Your task to perform on an android device: Open Google Chrome and click the shortcut for Amazon.com Image 0: 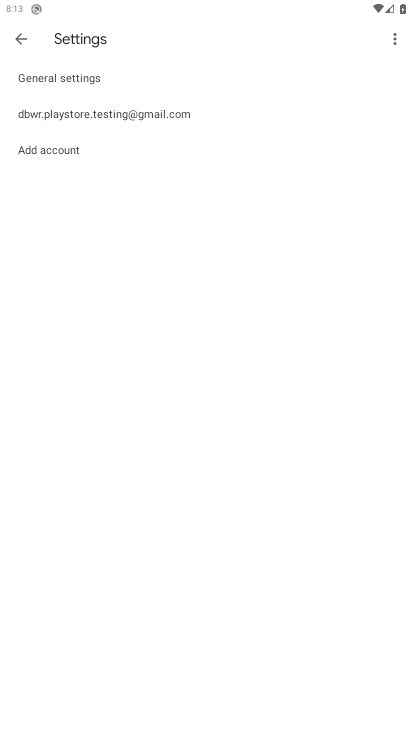
Step 0: press home button
Your task to perform on an android device: Open Google Chrome and click the shortcut for Amazon.com Image 1: 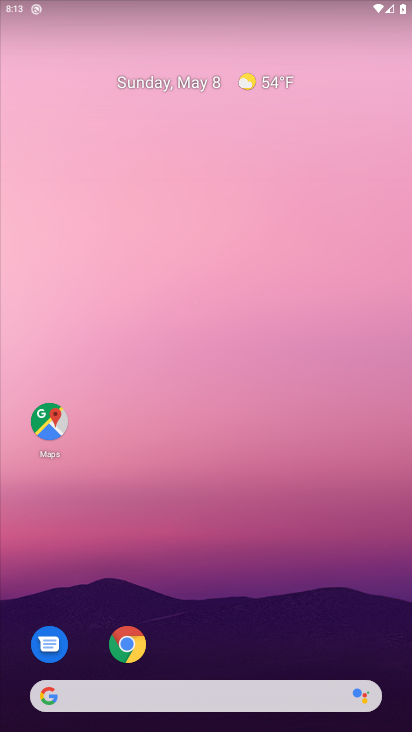
Step 1: click (125, 648)
Your task to perform on an android device: Open Google Chrome and click the shortcut for Amazon.com Image 2: 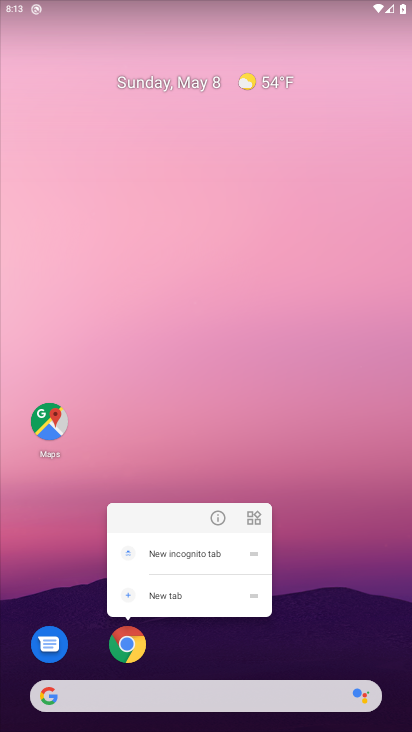
Step 2: click (125, 648)
Your task to perform on an android device: Open Google Chrome and click the shortcut for Amazon.com Image 3: 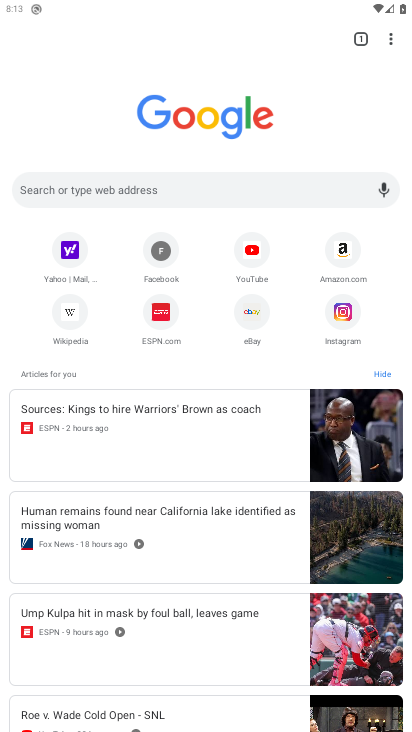
Step 3: click (344, 252)
Your task to perform on an android device: Open Google Chrome and click the shortcut for Amazon.com Image 4: 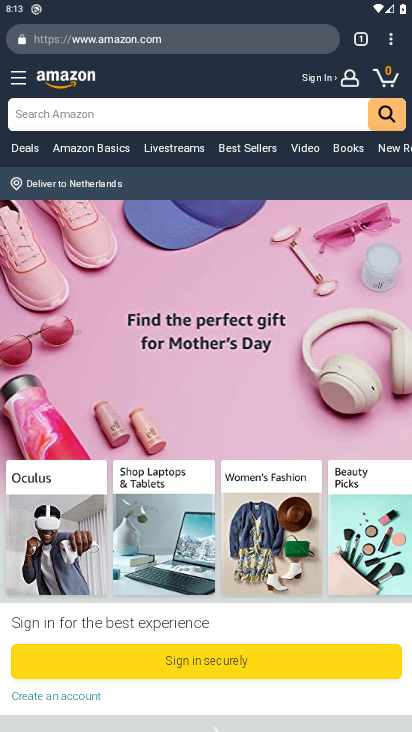
Step 4: task complete